Your task to perform on an android device: remove spam from my inbox in the gmail app Image 0: 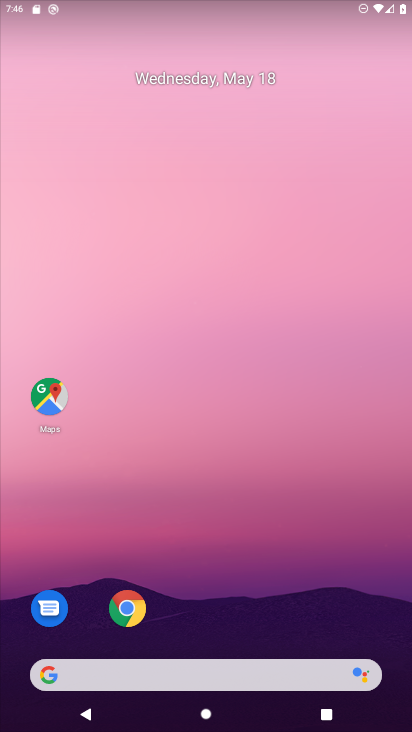
Step 0: drag from (254, 634) to (246, 187)
Your task to perform on an android device: remove spam from my inbox in the gmail app Image 1: 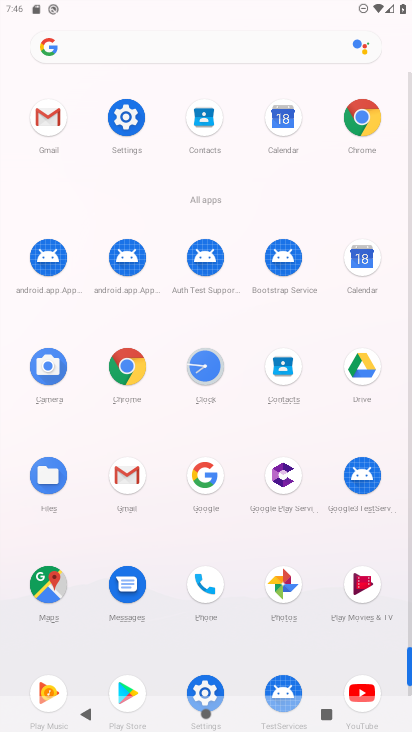
Step 1: click (113, 473)
Your task to perform on an android device: remove spam from my inbox in the gmail app Image 2: 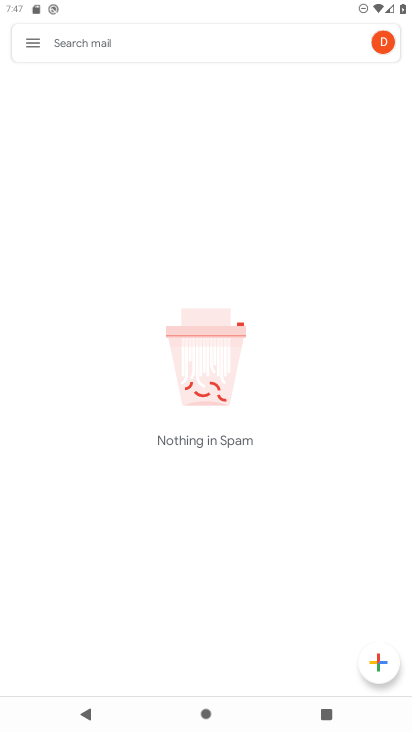
Step 2: task complete